Your task to perform on an android device: Search for the best rated headphones on Walmart Image 0: 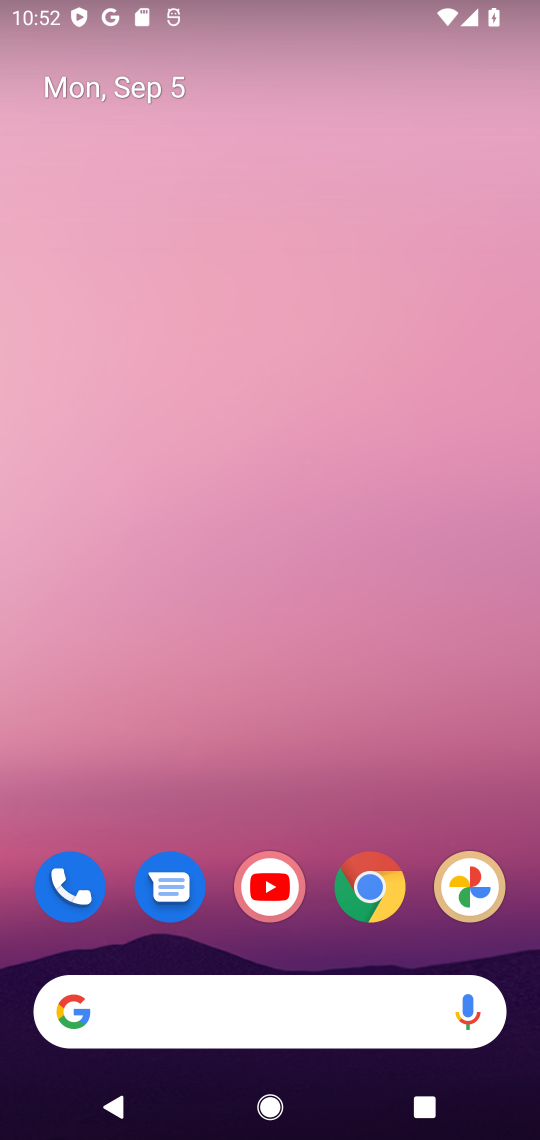
Step 0: click (375, 880)
Your task to perform on an android device: Search for the best rated headphones on Walmart Image 1: 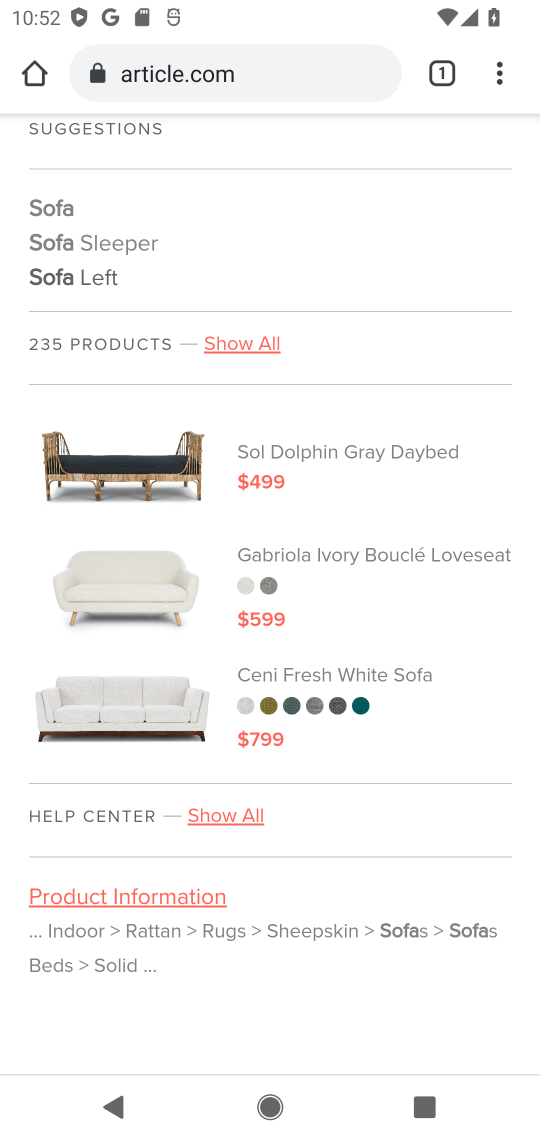
Step 1: click (254, 71)
Your task to perform on an android device: Search for the best rated headphones on Walmart Image 2: 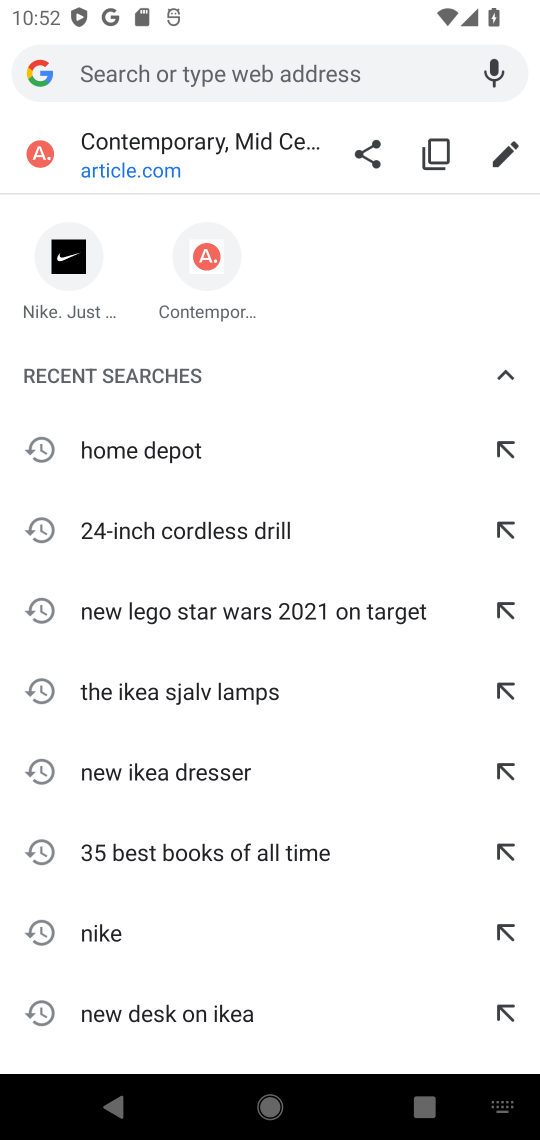
Step 2: drag from (282, 636) to (273, 511)
Your task to perform on an android device: Search for the best rated headphones on Walmart Image 3: 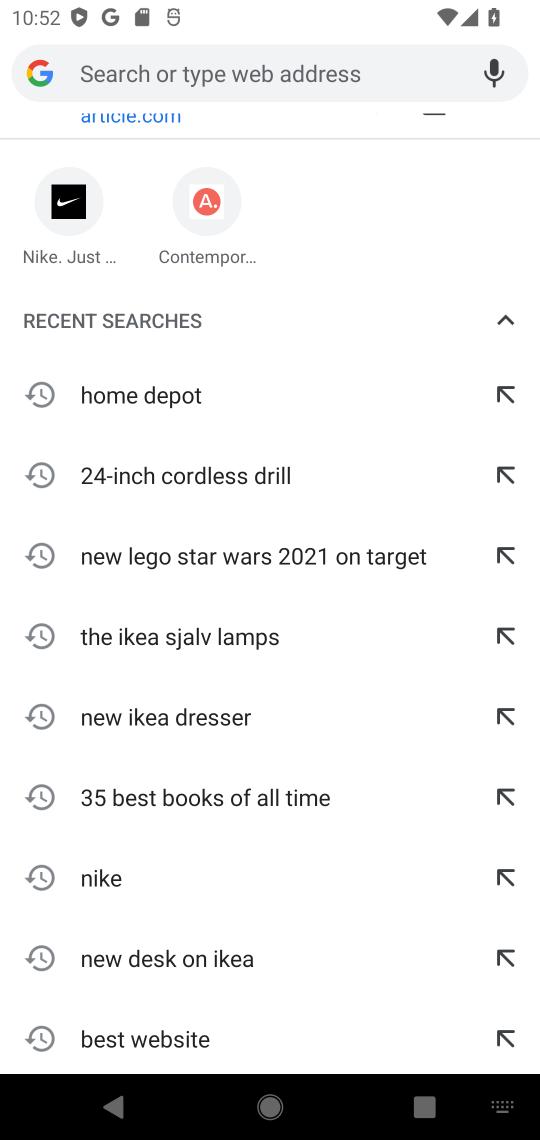
Step 3: press enter
Your task to perform on an android device: Search for the best rated headphones on Walmart Image 4: 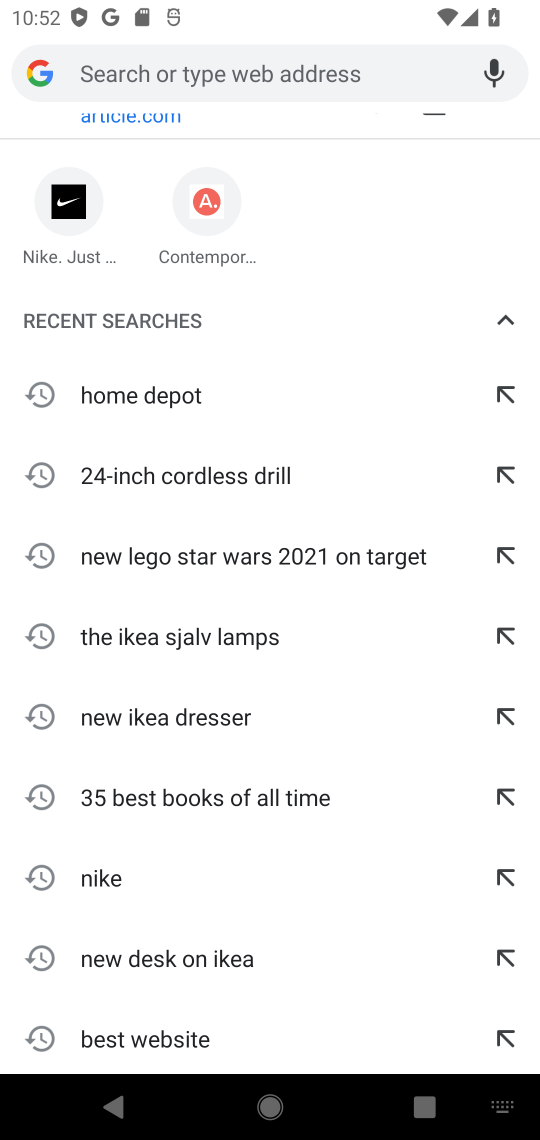
Step 4: type "walmart"
Your task to perform on an android device: Search for the best rated headphones on Walmart Image 5: 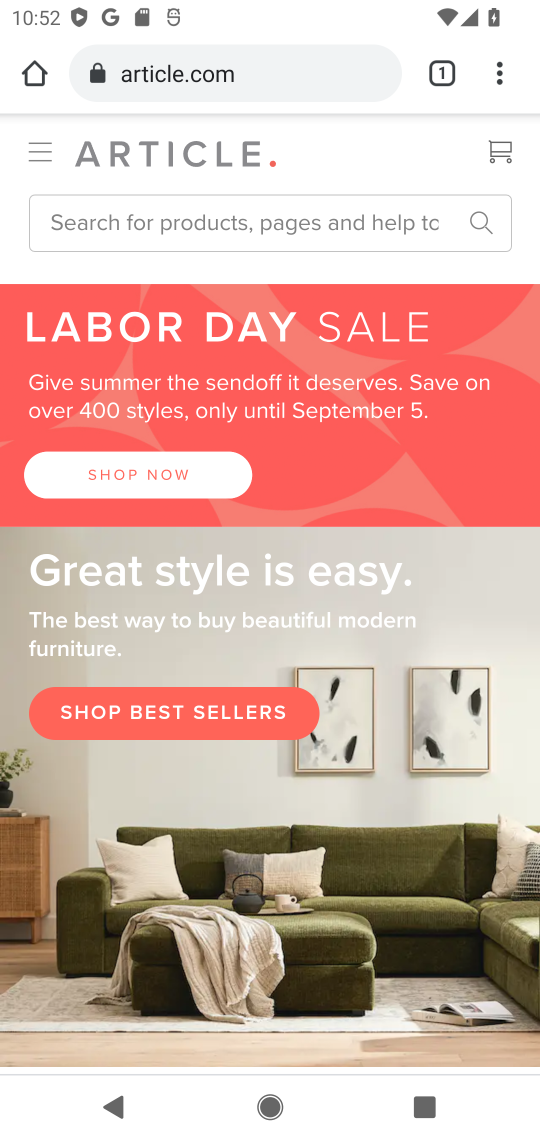
Step 5: click (194, 221)
Your task to perform on an android device: Search for the best rated headphones on Walmart Image 6: 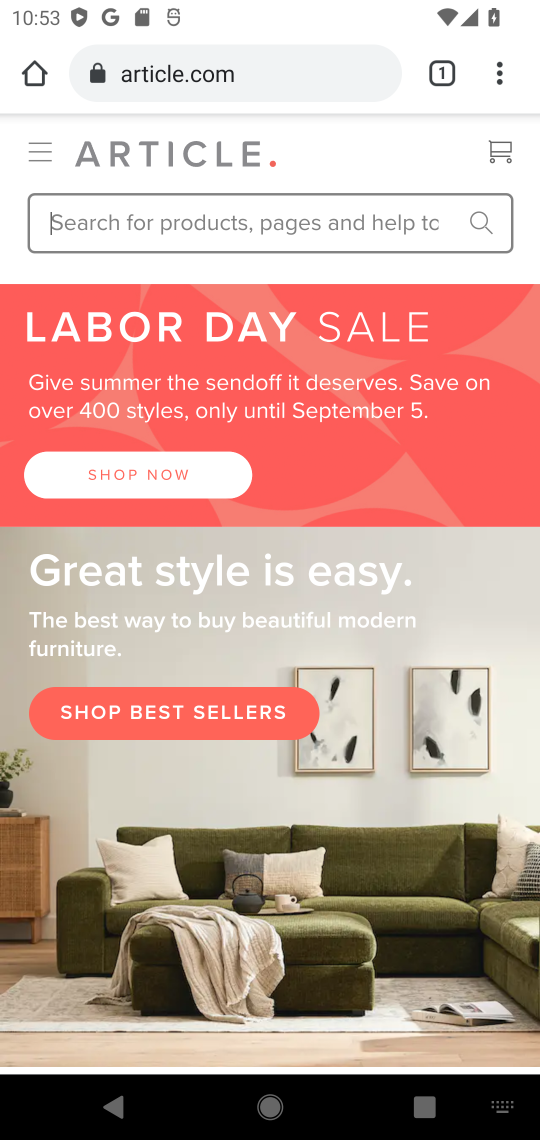
Step 6: click (253, 97)
Your task to perform on an android device: Search for the best rated headphones on Walmart Image 7: 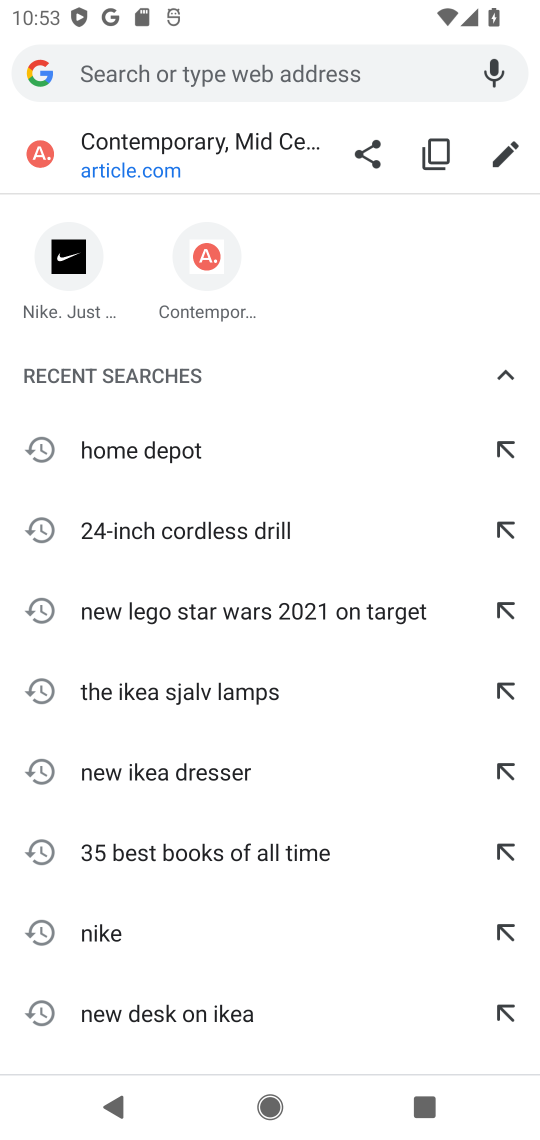
Step 7: type "walmart"
Your task to perform on an android device: Search for the best rated headphones on Walmart Image 8: 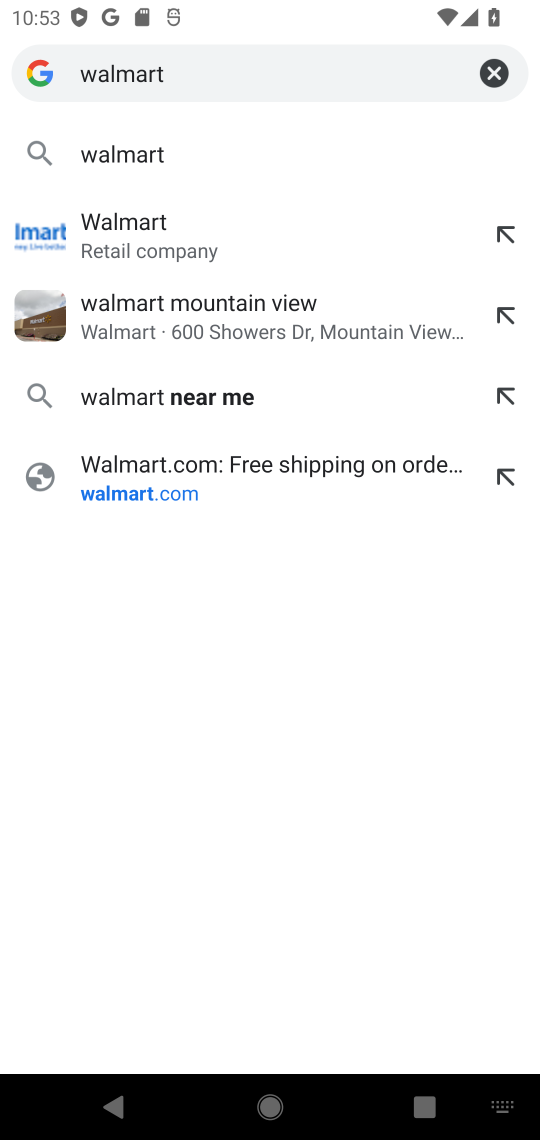
Step 8: press enter
Your task to perform on an android device: Search for the best rated headphones on Walmart Image 9: 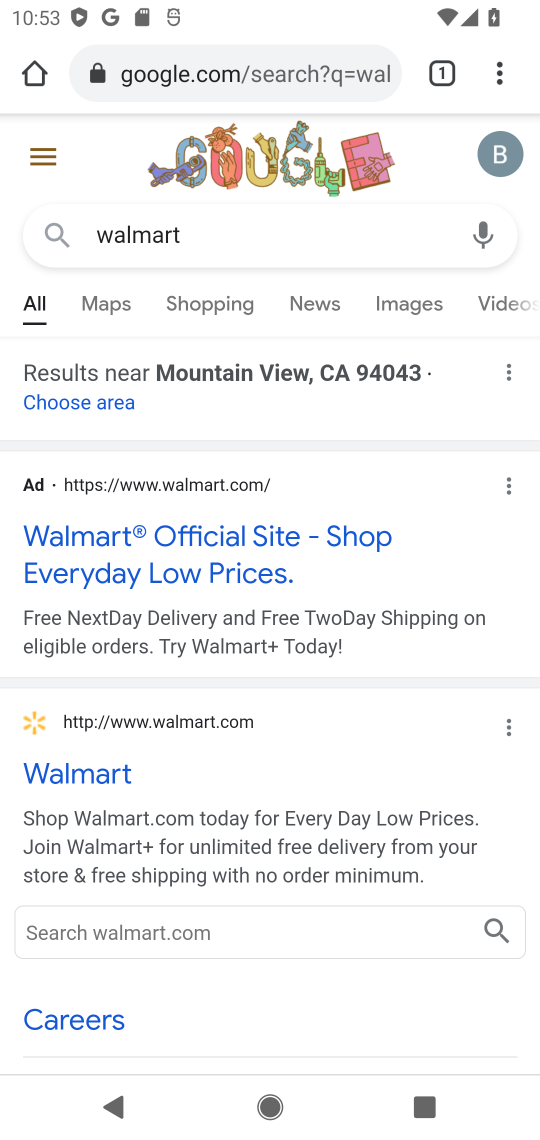
Step 9: click (104, 592)
Your task to perform on an android device: Search for the best rated headphones on Walmart Image 10: 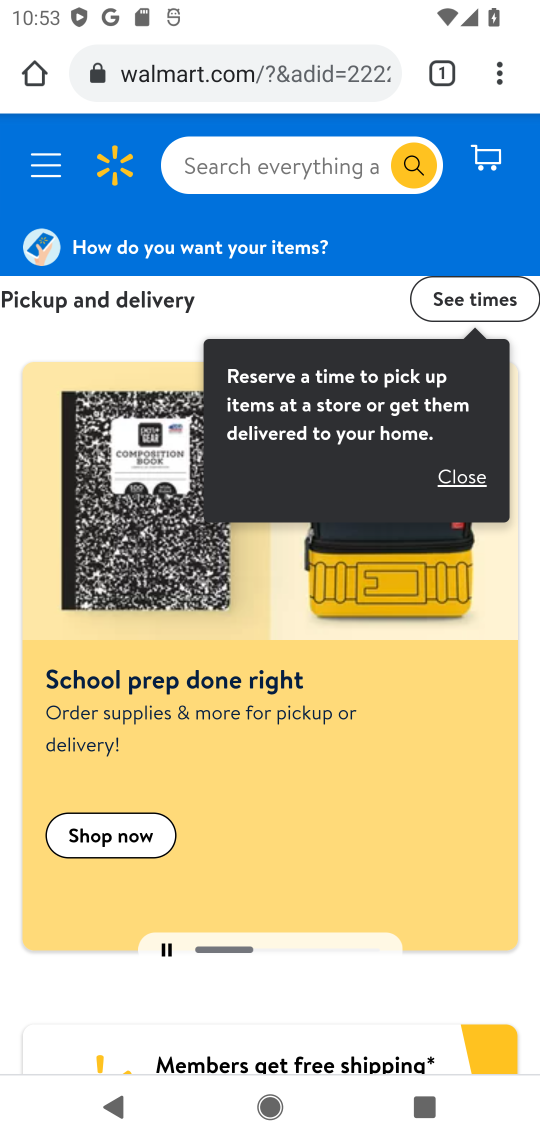
Step 10: click (243, 157)
Your task to perform on an android device: Search for the best rated headphones on Walmart Image 11: 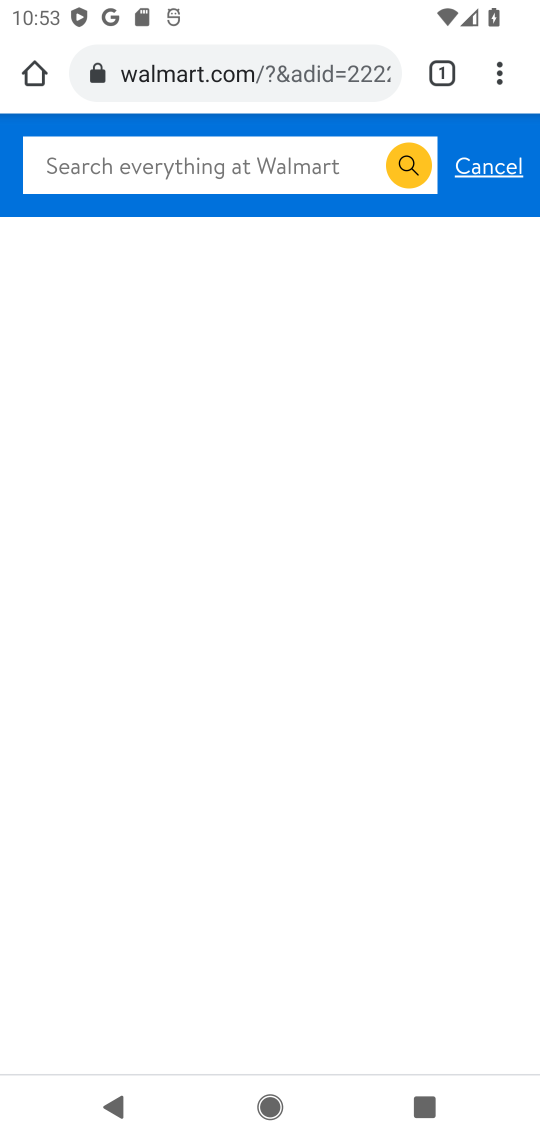
Step 11: type "hea"
Your task to perform on an android device: Search for the best rated headphones on Walmart Image 12: 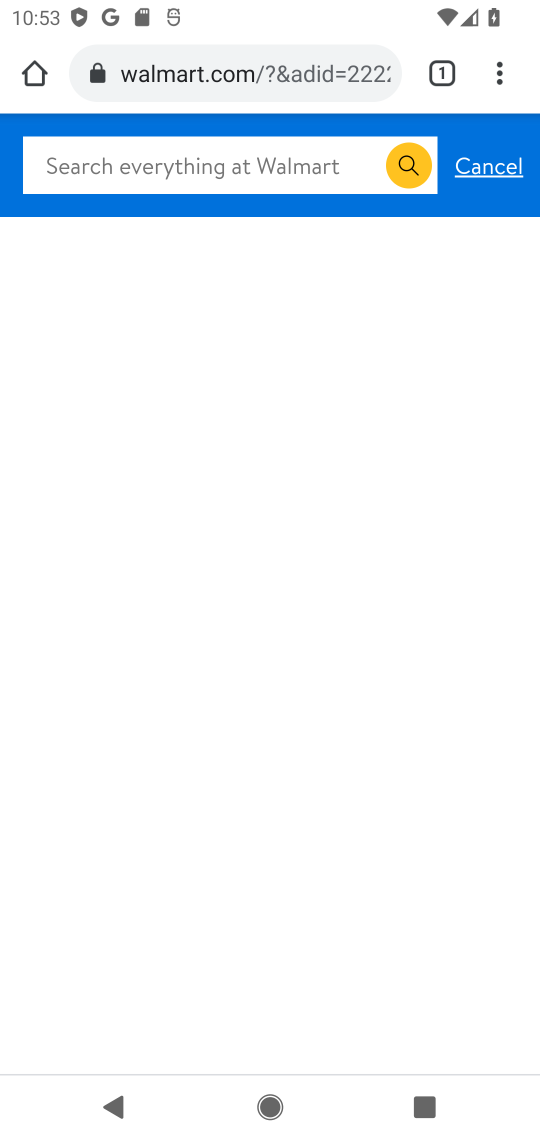
Step 12: click (207, 156)
Your task to perform on an android device: Search for the best rated headphones on Walmart Image 13: 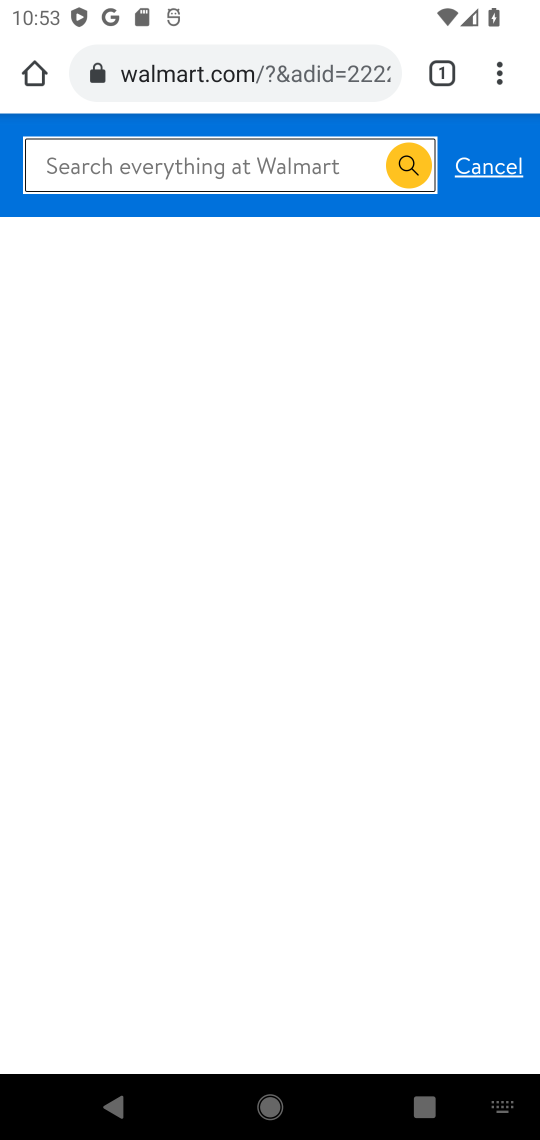
Step 13: type "headphones"
Your task to perform on an android device: Search for the best rated headphones on Walmart Image 14: 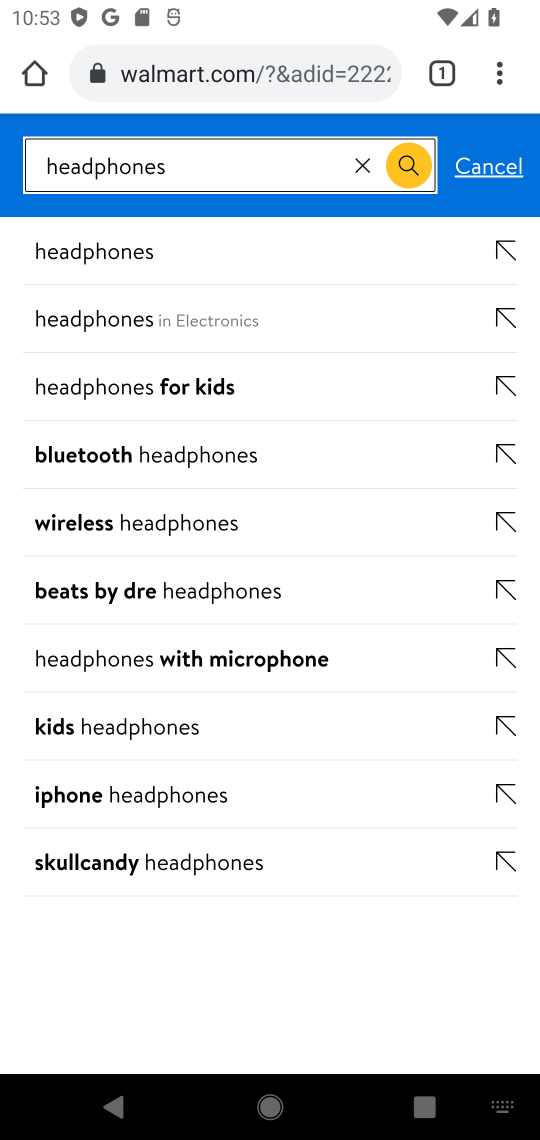
Step 14: press enter
Your task to perform on an android device: Search for the best rated headphones on Walmart Image 15: 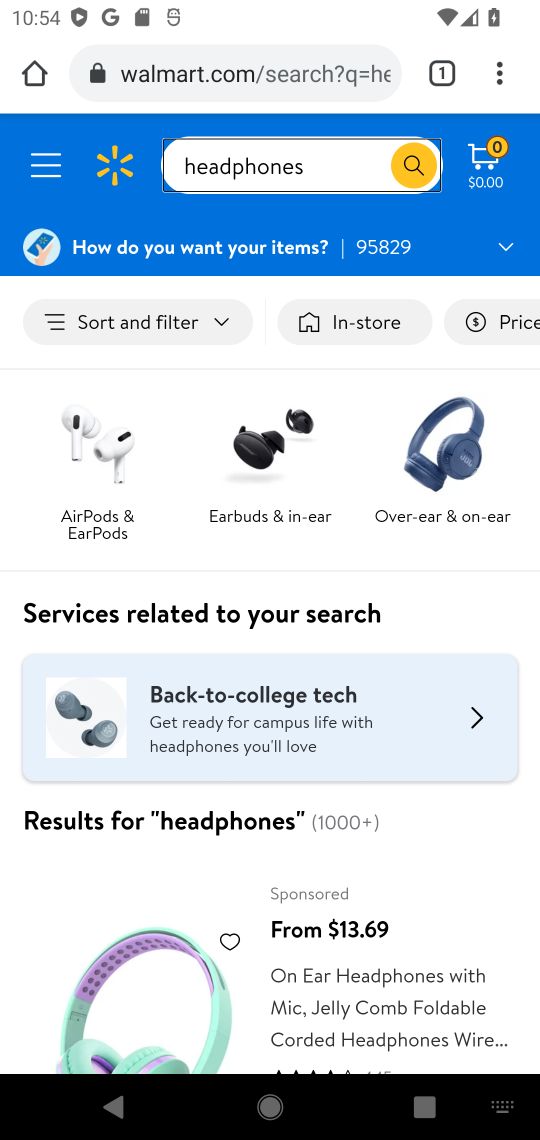
Step 15: drag from (318, 691) to (336, 546)
Your task to perform on an android device: Search for the best rated headphones on Walmart Image 16: 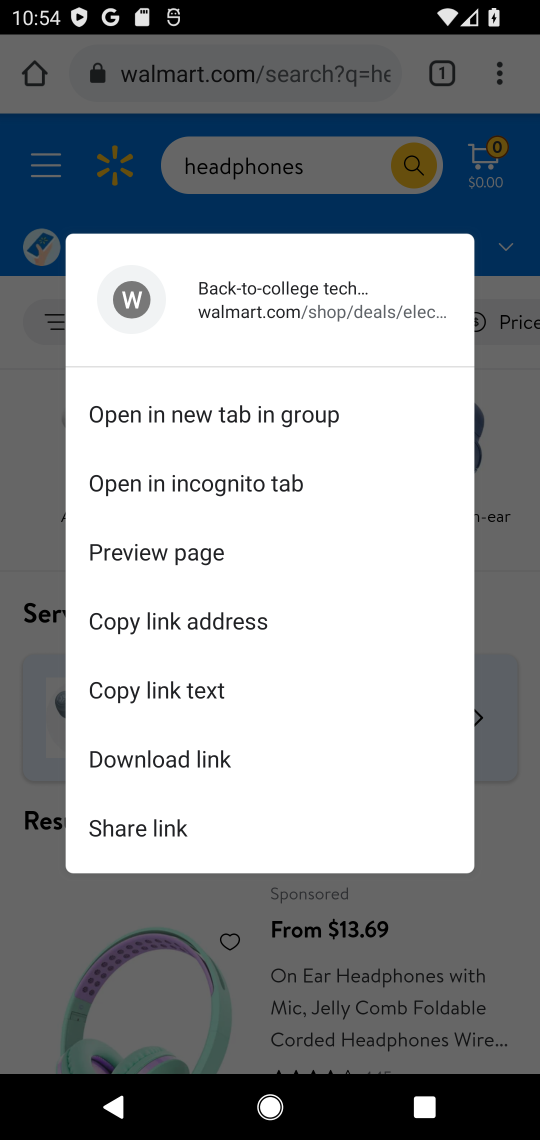
Step 16: click (512, 513)
Your task to perform on an android device: Search for the best rated headphones on Walmart Image 17: 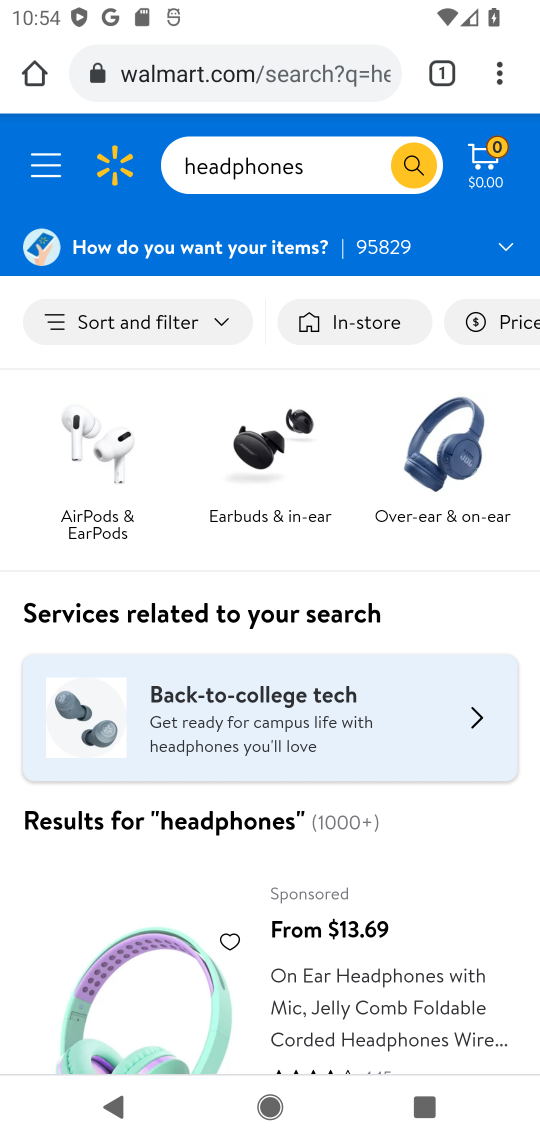
Step 17: click (84, 336)
Your task to perform on an android device: Search for the best rated headphones on Walmart Image 18: 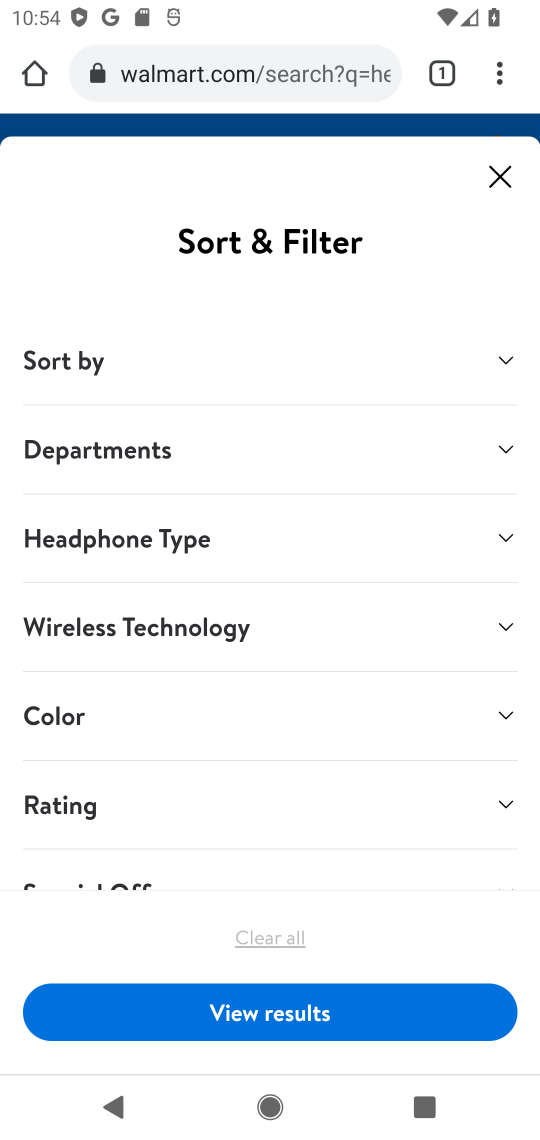
Step 18: click (153, 774)
Your task to perform on an android device: Search for the best rated headphones on Walmart Image 19: 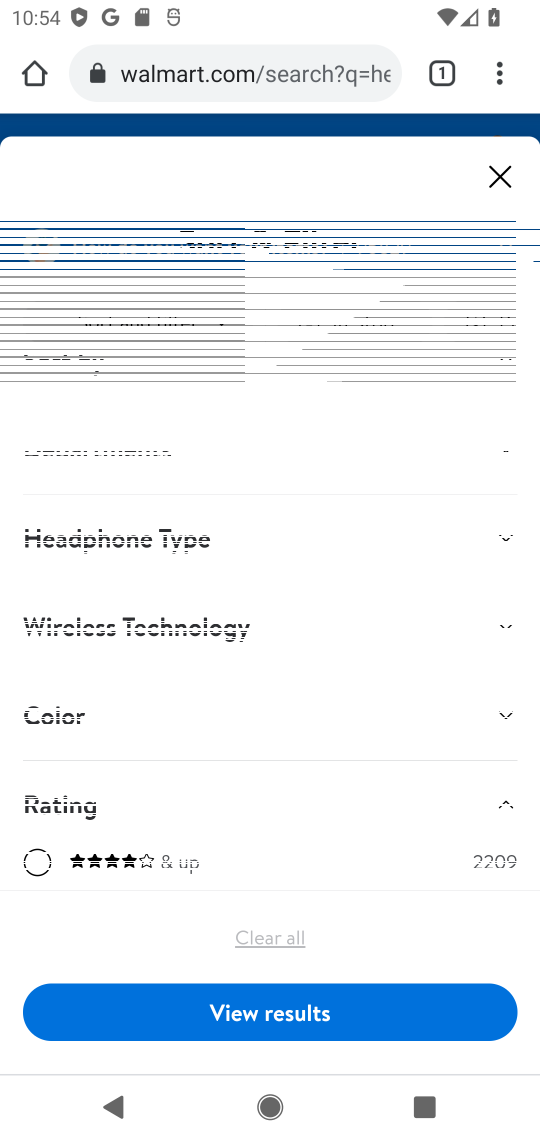
Step 19: click (92, 858)
Your task to perform on an android device: Search for the best rated headphones on Walmart Image 20: 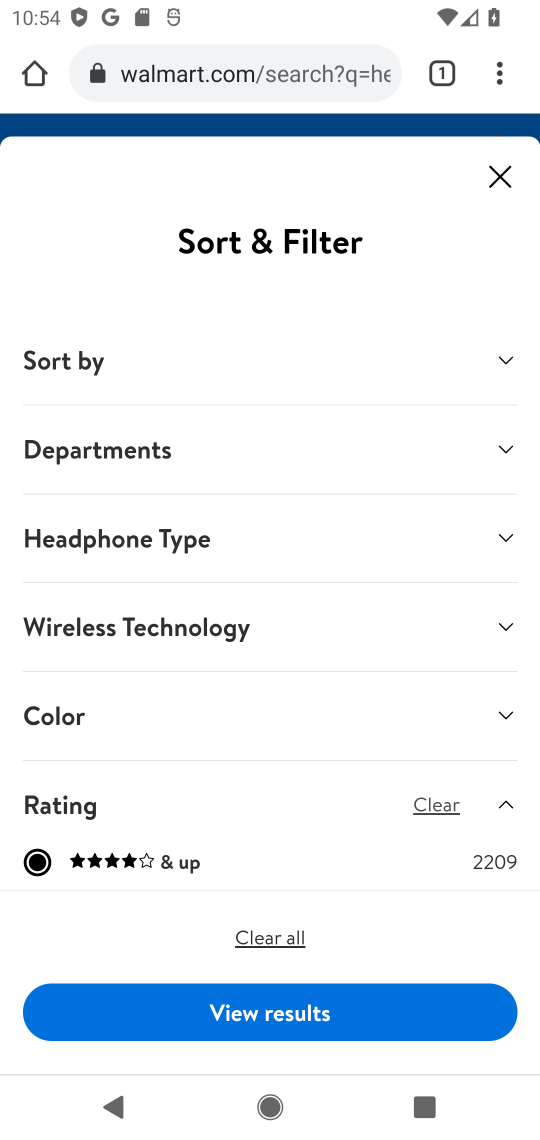
Step 20: click (373, 1026)
Your task to perform on an android device: Search for the best rated headphones on Walmart Image 21: 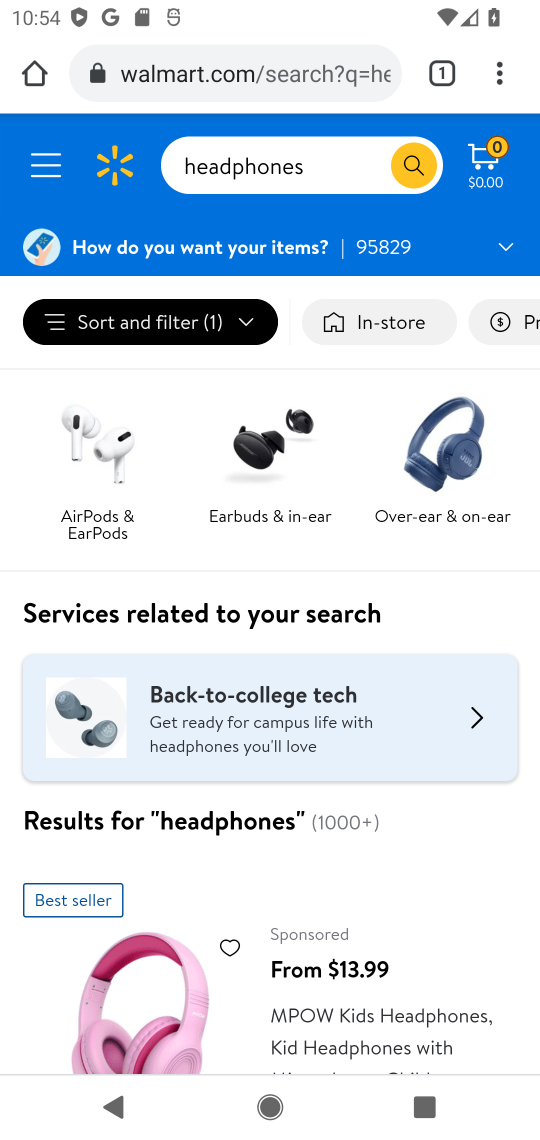
Step 21: task complete